Your task to perform on an android device: check data usage Image 0: 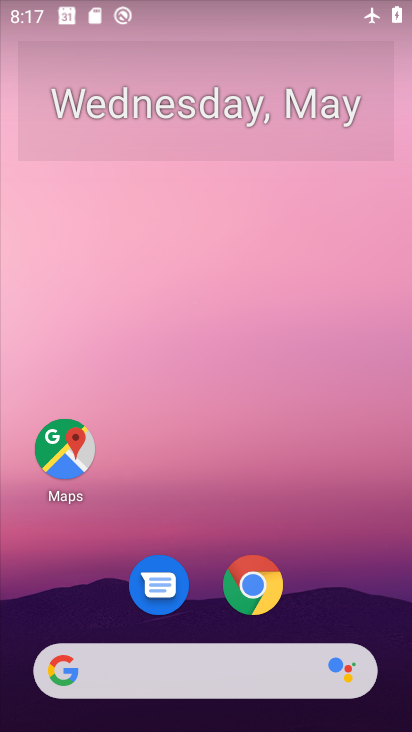
Step 0: drag from (237, 507) to (240, 48)
Your task to perform on an android device: check data usage Image 1: 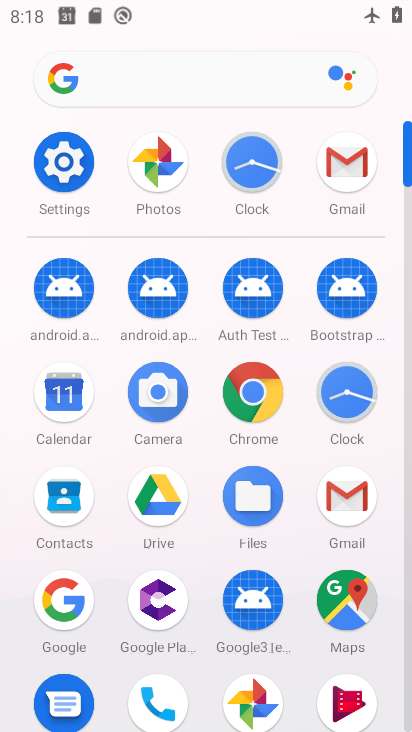
Step 1: click (73, 151)
Your task to perform on an android device: check data usage Image 2: 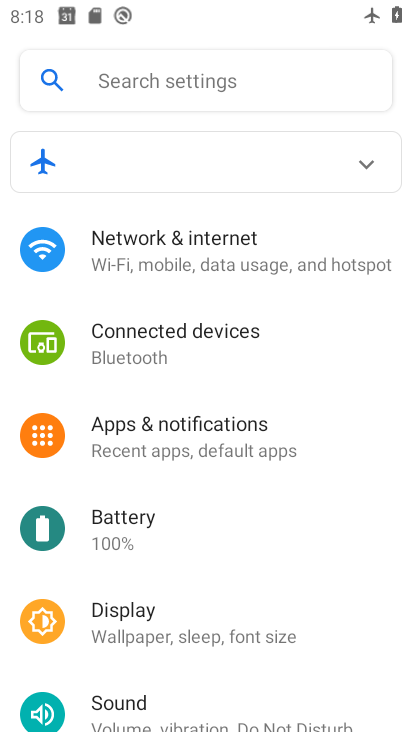
Step 2: click (162, 249)
Your task to perform on an android device: check data usage Image 3: 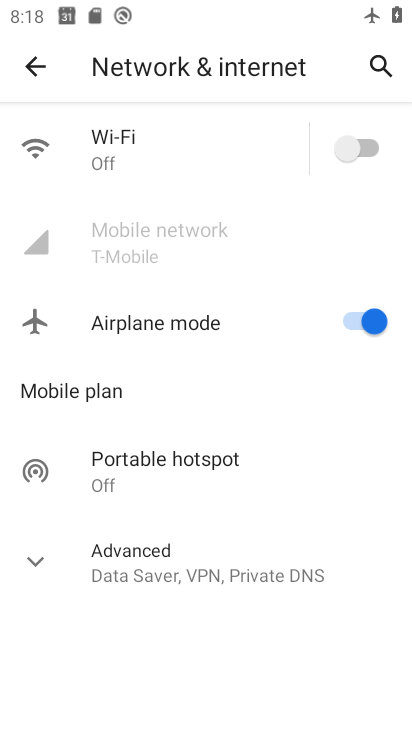
Step 3: click (344, 318)
Your task to perform on an android device: check data usage Image 4: 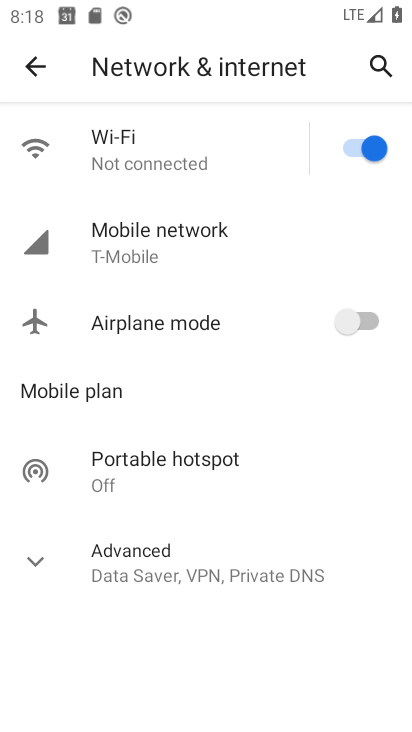
Step 4: click (240, 238)
Your task to perform on an android device: check data usage Image 5: 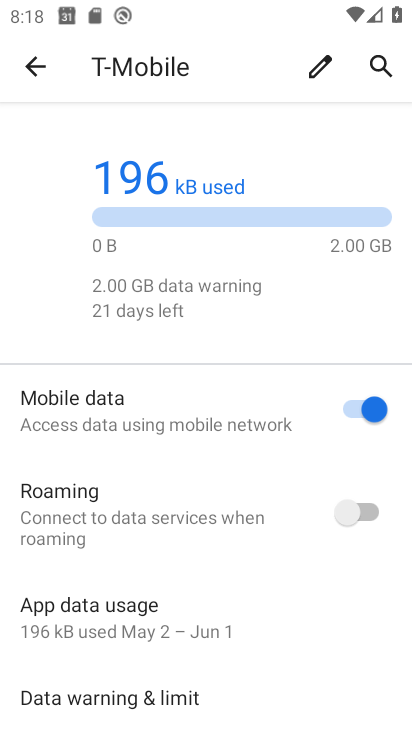
Step 5: task complete